Your task to perform on an android device: turn off airplane mode Image 0: 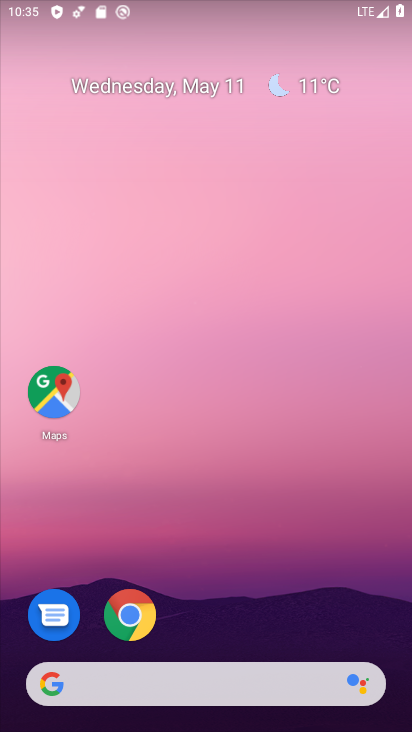
Step 0: drag from (173, 0) to (268, 555)
Your task to perform on an android device: turn off airplane mode Image 1: 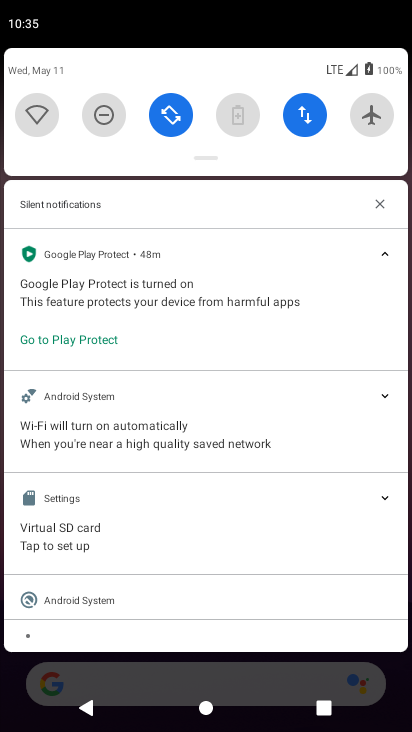
Step 1: task complete